Your task to perform on an android device: delete location history Image 0: 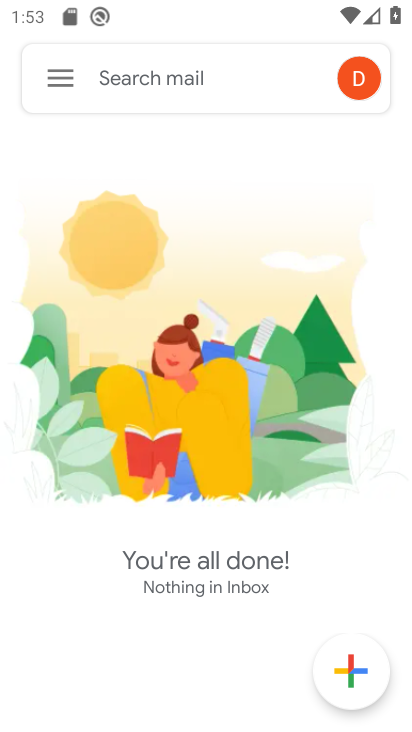
Step 0: press home button
Your task to perform on an android device: delete location history Image 1: 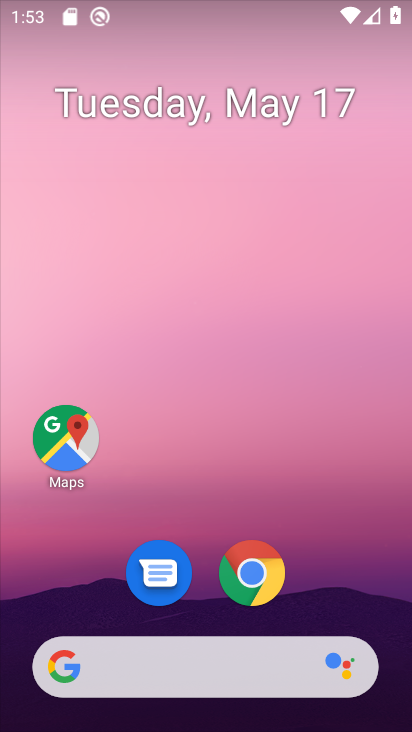
Step 1: drag from (216, 624) to (222, 11)
Your task to perform on an android device: delete location history Image 2: 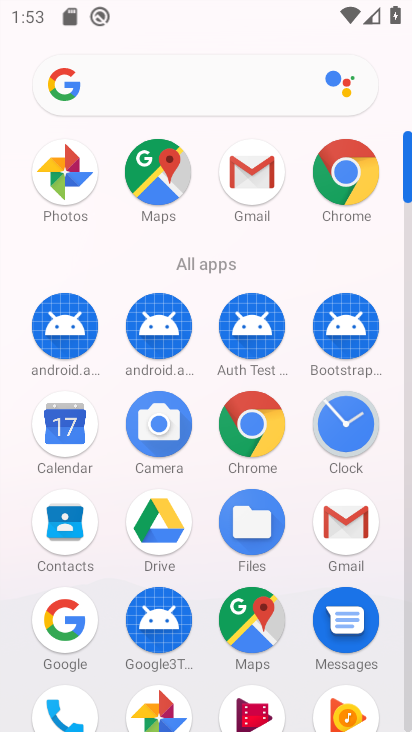
Step 2: click (154, 190)
Your task to perform on an android device: delete location history Image 3: 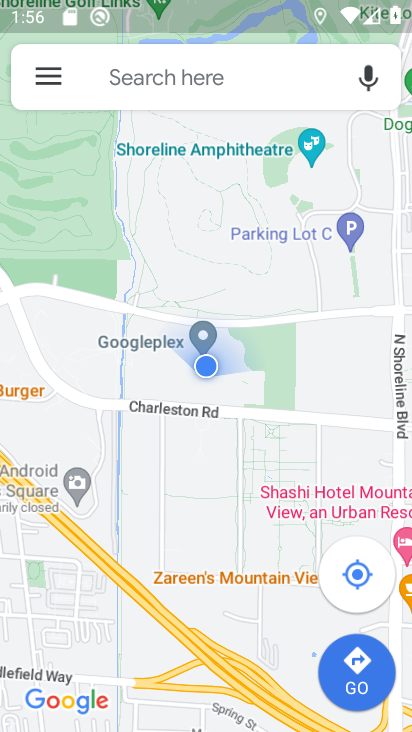
Step 3: click (48, 85)
Your task to perform on an android device: delete location history Image 4: 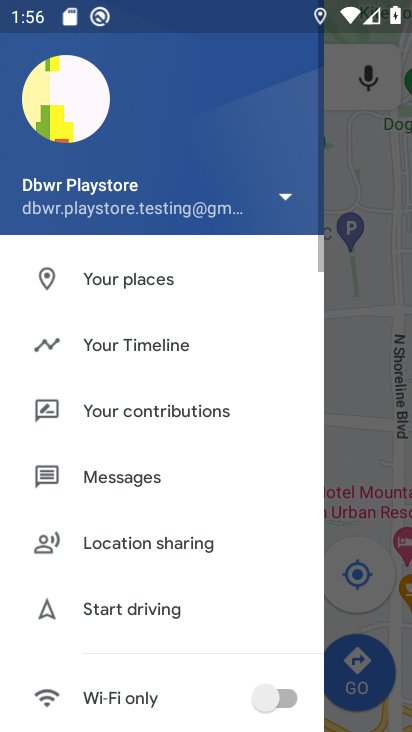
Step 4: drag from (165, 541) to (245, 238)
Your task to perform on an android device: delete location history Image 5: 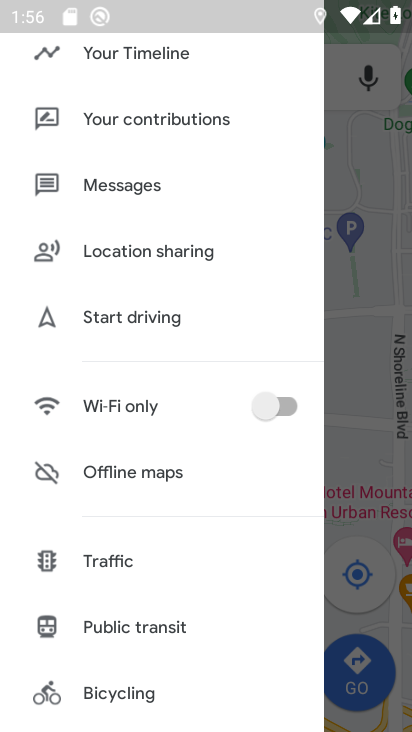
Step 5: click (164, 52)
Your task to perform on an android device: delete location history Image 6: 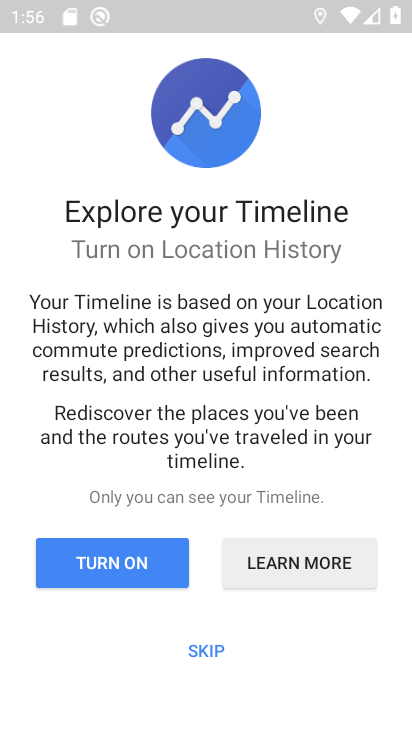
Step 6: click (191, 638)
Your task to perform on an android device: delete location history Image 7: 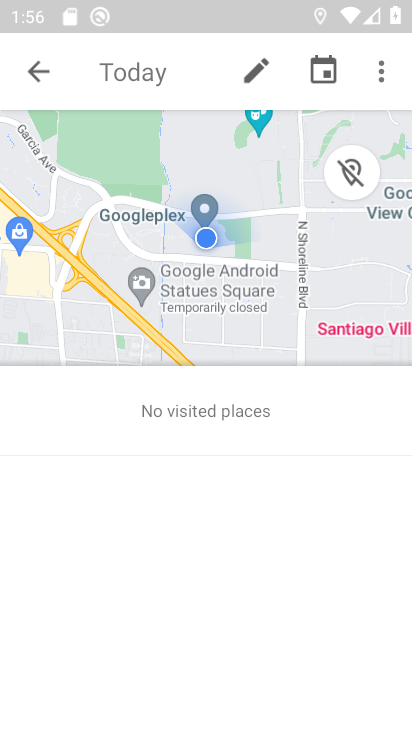
Step 7: click (382, 86)
Your task to perform on an android device: delete location history Image 8: 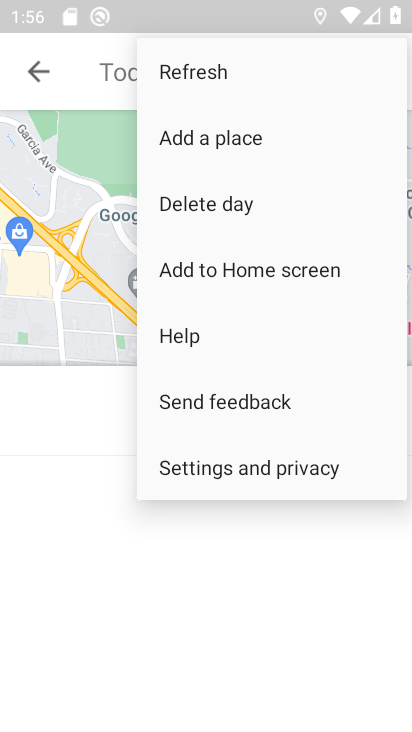
Step 8: click (215, 456)
Your task to perform on an android device: delete location history Image 9: 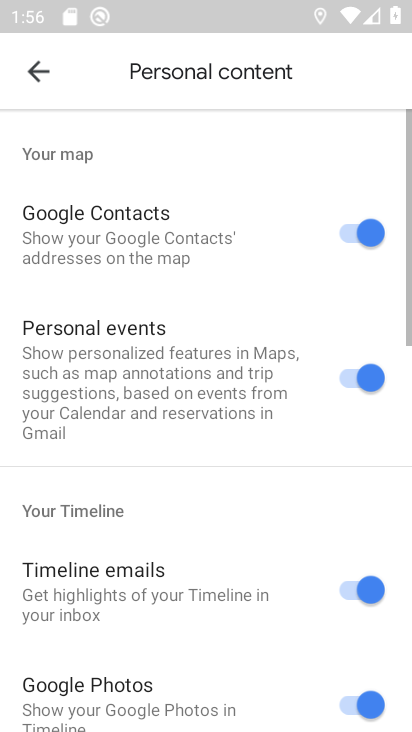
Step 9: drag from (210, 485) to (247, 74)
Your task to perform on an android device: delete location history Image 10: 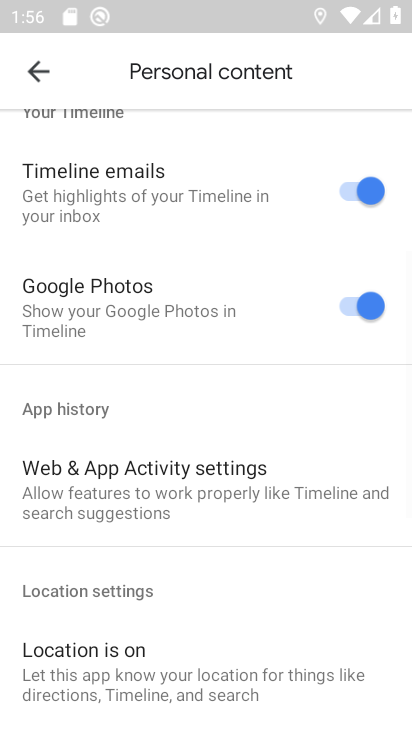
Step 10: drag from (194, 594) to (265, 135)
Your task to perform on an android device: delete location history Image 11: 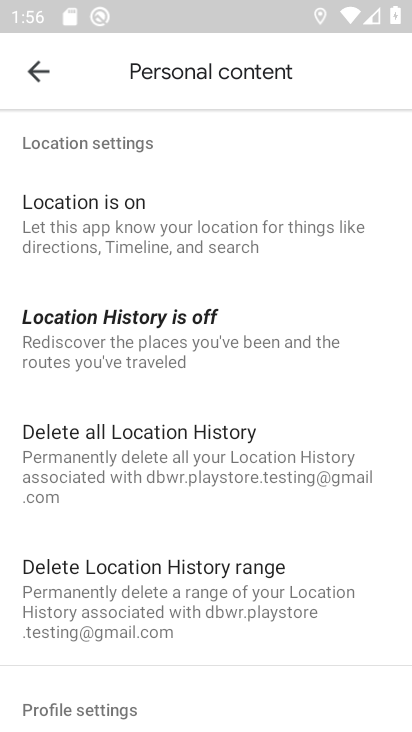
Step 11: click (196, 471)
Your task to perform on an android device: delete location history Image 12: 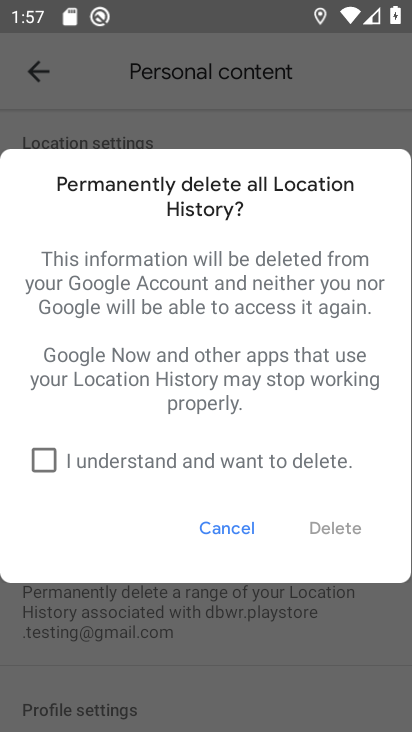
Step 12: click (41, 459)
Your task to perform on an android device: delete location history Image 13: 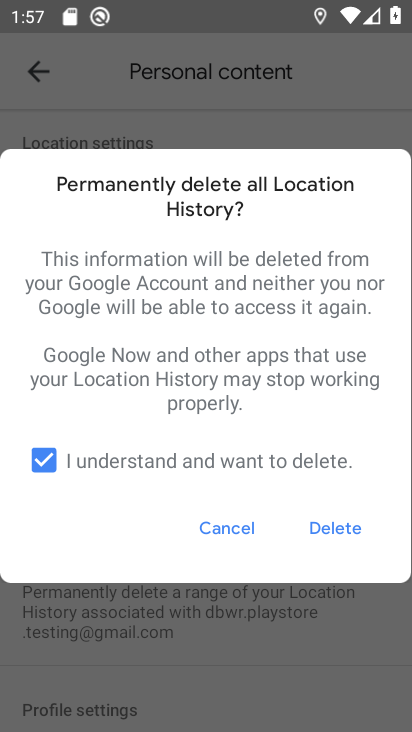
Step 13: click (342, 532)
Your task to perform on an android device: delete location history Image 14: 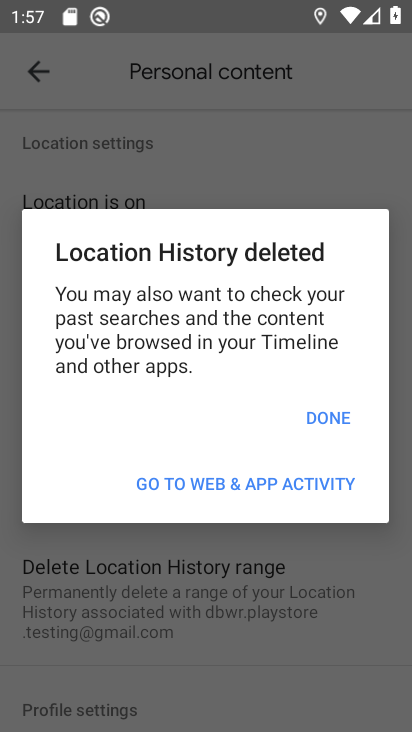
Step 14: task complete